Your task to perform on an android device: Search for Mexican restaurants on Maps Image 0: 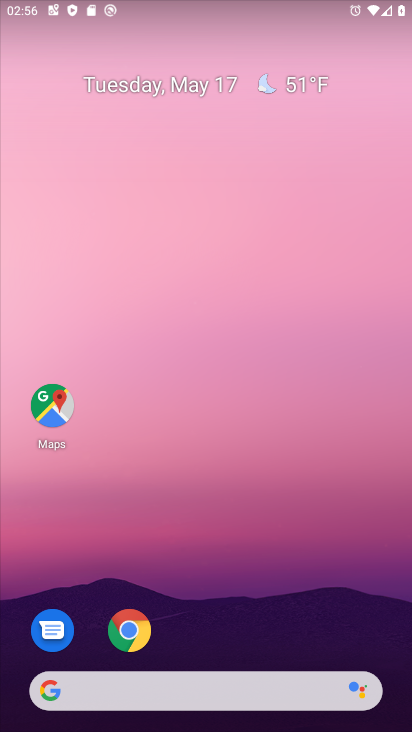
Step 0: click (44, 412)
Your task to perform on an android device: Search for Mexican restaurants on Maps Image 1: 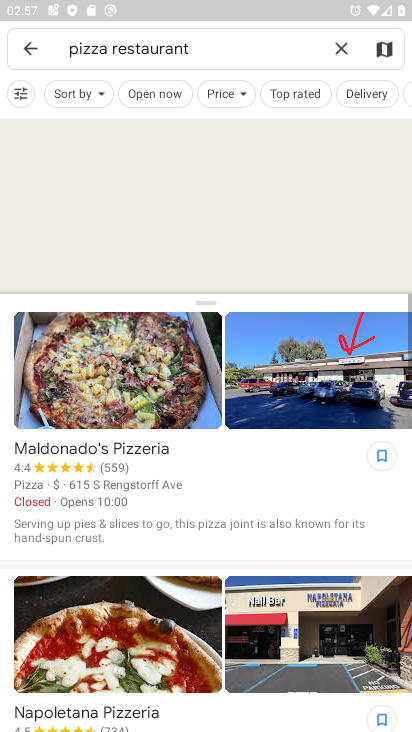
Step 1: click (335, 47)
Your task to perform on an android device: Search for Mexican restaurants on Maps Image 2: 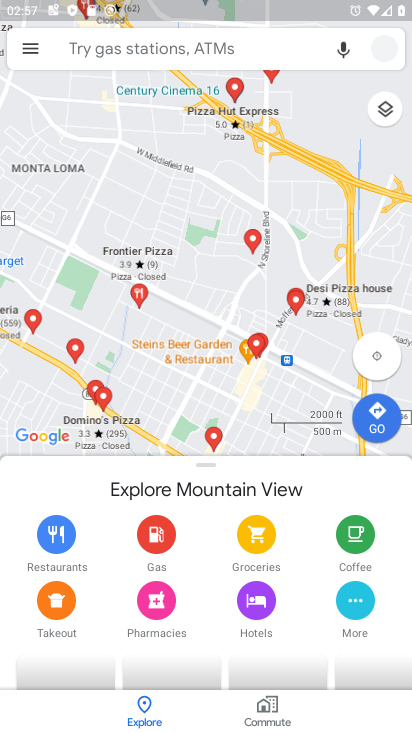
Step 2: click (169, 47)
Your task to perform on an android device: Search for Mexican restaurants on Maps Image 3: 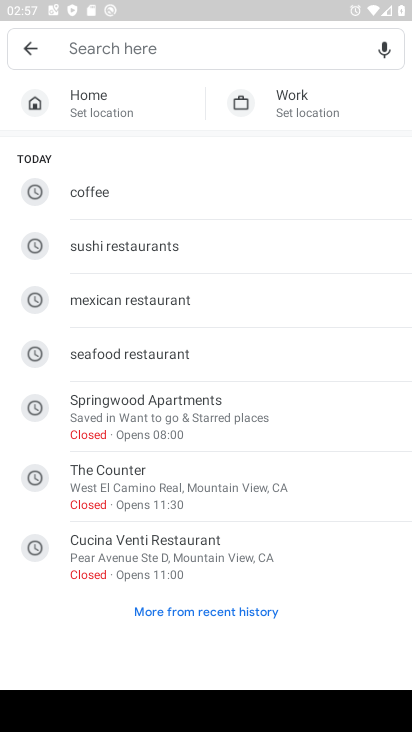
Step 3: click (121, 304)
Your task to perform on an android device: Search for Mexican restaurants on Maps Image 4: 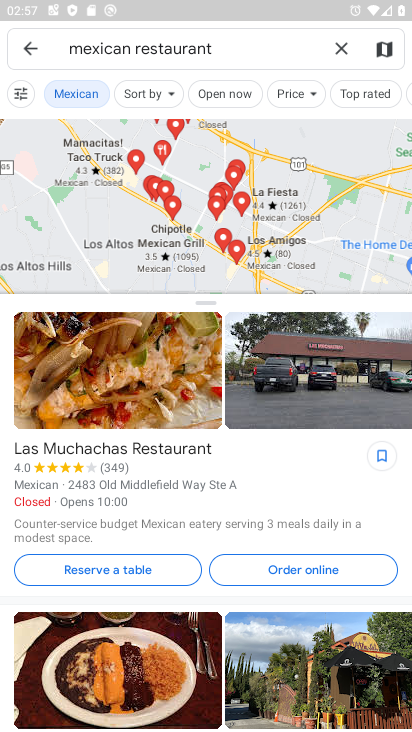
Step 4: task complete